Your task to perform on an android device: Clear all items from cart on bestbuy. Add acer nitro to the cart on bestbuy, then select checkout. Image 0: 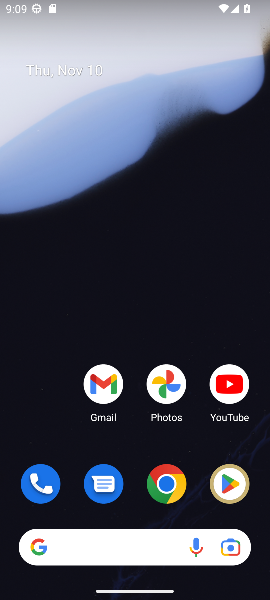
Step 0: click (166, 490)
Your task to perform on an android device: Clear all items from cart on bestbuy. Add acer nitro to the cart on bestbuy, then select checkout. Image 1: 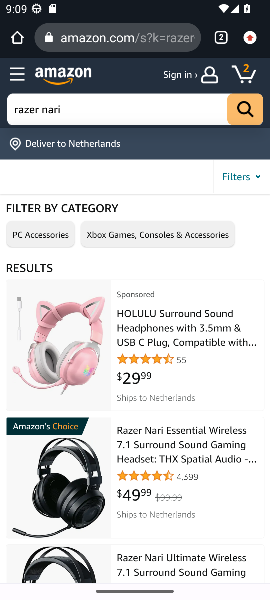
Step 1: click (126, 32)
Your task to perform on an android device: Clear all items from cart on bestbuy. Add acer nitro to the cart on bestbuy, then select checkout. Image 2: 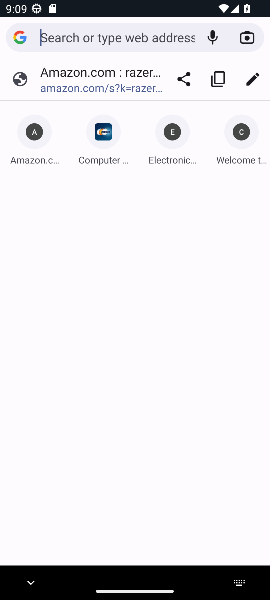
Step 2: type "bestbuy.com"
Your task to perform on an android device: Clear all items from cart on bestbuy. Add acer nitro to the cart on bestbuy, then select checkout. Image 3: 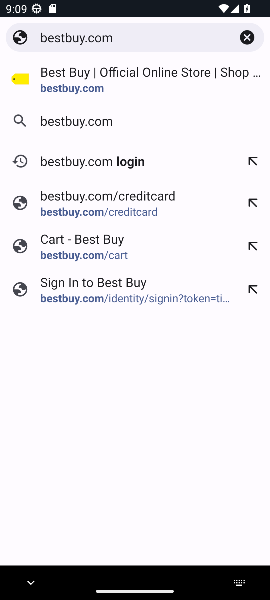
Step 3: click (71, 82)
Your task to perform on an android device: Clear all items from cart on bestbuy. Add acer nitro to the cart on bestbuy, then select checkout. Image 4: 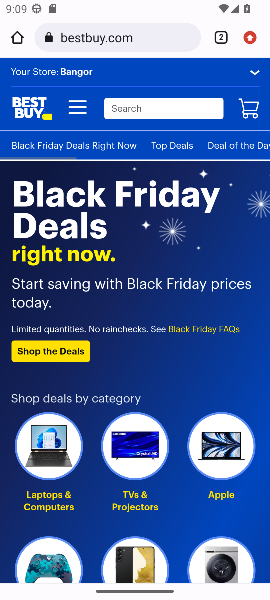
Step 4: click (243, 106)
Your task to perform on an android device: Clear all items from cart on bestbuy. Add acer nitro to the cart on bestbuy, then select checkout. Image 5: 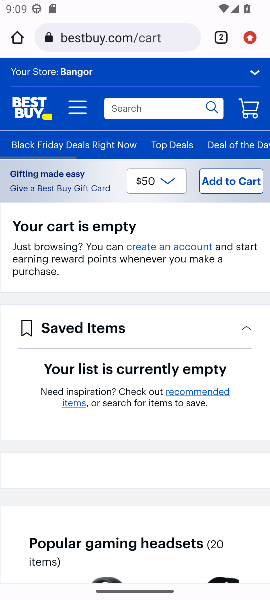
Step 5: drag from (137, 380) to (140, 293)
Your task to perform on an android device: Clear all items from cart on bestbuy. Add acer nitro to the cart on bestbuy, then select checkout. Image 6: 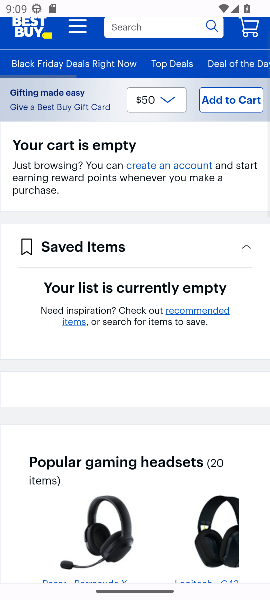
Step 6: drag from (167, 237) to (151, 395)
Your task to perform on an android device: Clear all items from cart on bestbuy. Add acer nitro to the cart on bestbuy, then select checkout. Image 7: 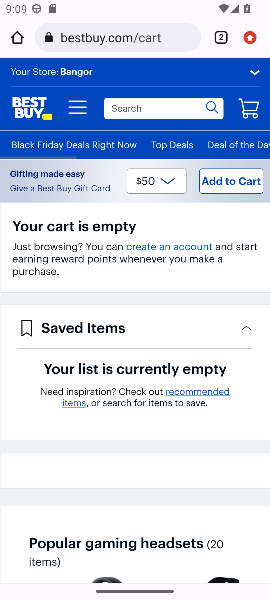
Step 7: click (166, 107)
Your task to perform on an android device: Clear all items from cart on bestbuy. Add acer nitro to the cart on bestbuy, then select checkout. Image 8: 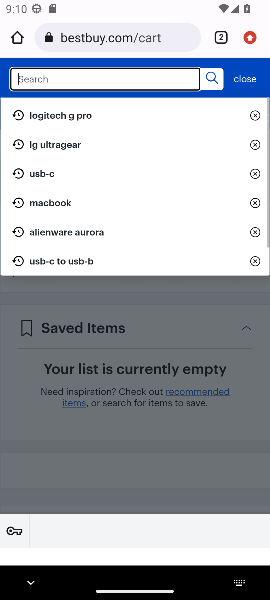
Step 8: type " acer nitro"
Your task to perform on an android device: Clear all items from cart on bestbuy. Add acer nitro to the cart on bestbuy, then select checkout. Image 9: 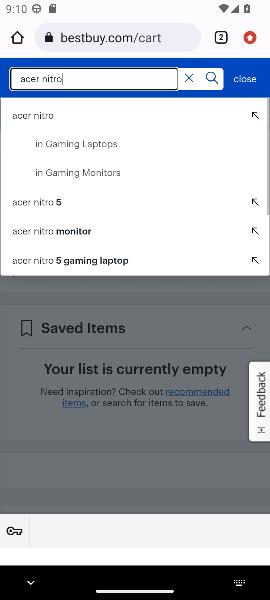
Step 9: click (33, 116)
Your task to perform on an android device: Clear all items from cart on bestbuy. Add acer nitro to the cart on bestbuy, then select checkout. Image 10: 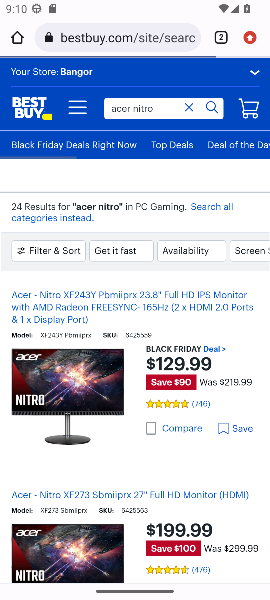
Step 10: drag from (85, 380) to (84, 266)
Your task to perform on an android device: Clear all items from cart on bestbuy. Add acer nitro to the cart on bestbuy, then select checkout. Image 11: 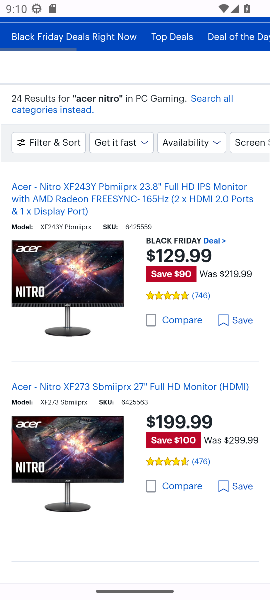
Step 11: click (79, 308)
Your task to perform on an android device: Clear all items from cart on bestbuy. Add acer nitro to the cart on bestbuy, then select checkout. Image 12: 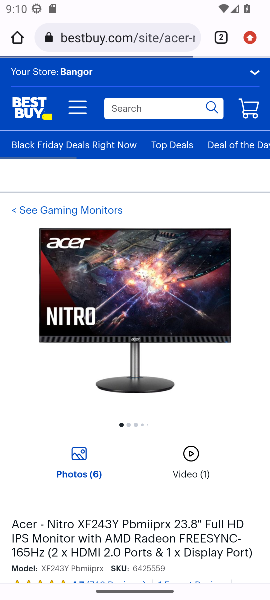
Step 12: drag from (102, 387) to (97, 173)
Your task to perform on an android device: Clear all items from cart on bestbuy. Add acer nitro to the cart on bestbuy, then select checkout. Image 13: 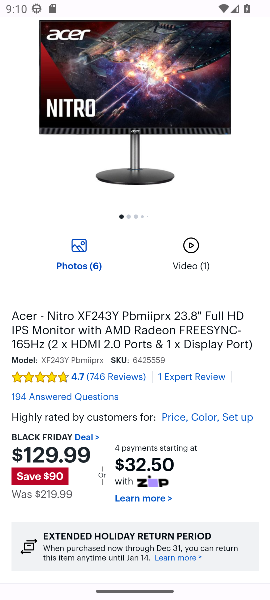
Step 13: drag from (103, 419) to (110, 196)
Your task to perform on an android device: Clear all items from cart on bestbuy. Add acer nitro to the cart on bestbuy, then select checkout. Image 14: 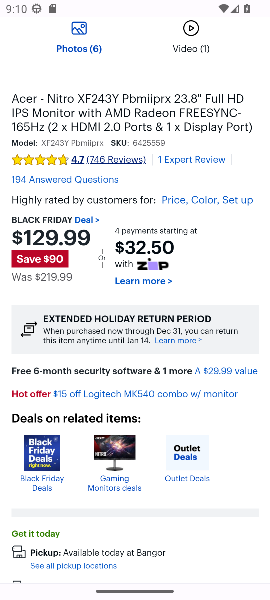
Step 14: drag from (141, 457) to (141, 189)
Your task to perform on an android device: Clear all items from cart on bestbuy. Add acer nitro to the cart on bestbuy, then select checkout. Image 15: 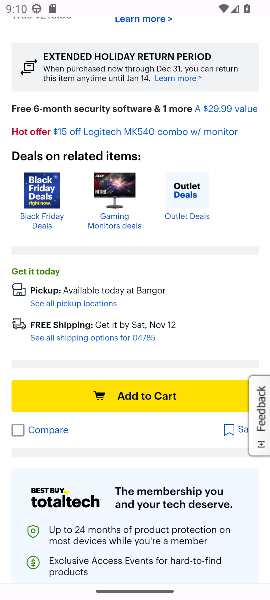
Step 15: click (136, 388)
Your task to perform on an android device: Clear all items from cart on bestbuy. Add acer nitro to the cart on bestbuy, then select checkout. Image 16: 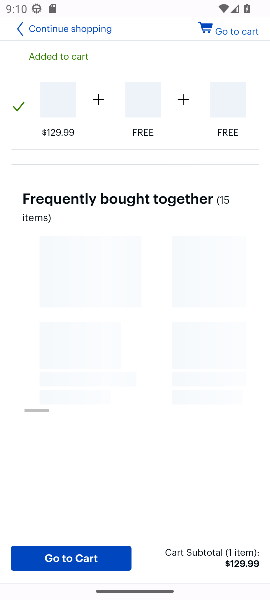
Step 16: click (234, 33)
Your task to perform on an android device: Clear all items from cart on bestbuy. Add acer nitro to the cart on bestbuy, then select checkout. Image 17: 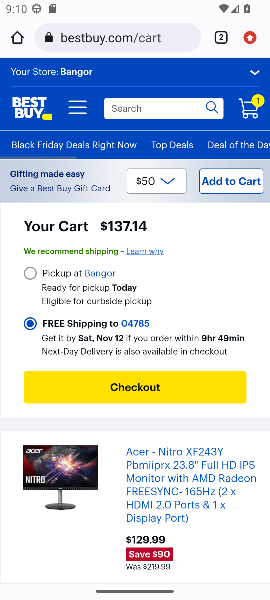
Step 17: click (141, 390)
Your task to perform on an android device: Clear all items from cart on bestbuy. Add acer nitro to the cart on bestbuy, then select checkout. Image 18: 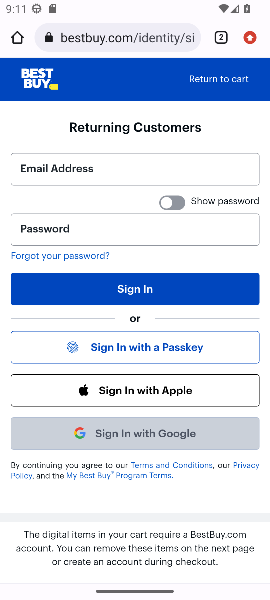
Step 18: task complete